Your task to perform on an android device: read, delete, or share a saved page in the chrome app Image 0: 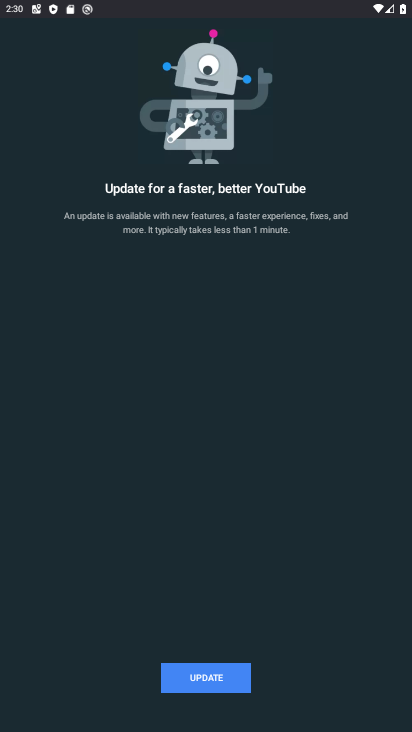
Step 0: press back button
Your task to perform on an android device: read, delete, or share a saved page in the chrome app Image 1: 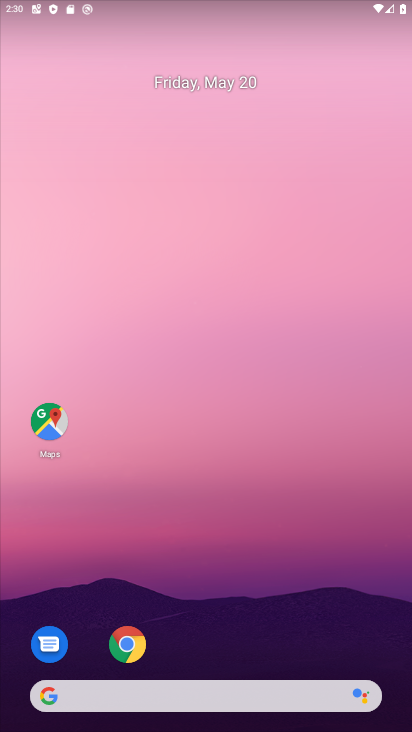
Step 1: click (120, 638)
Your task to perform on an android device: read, delete, or share a saved page in the chrome app Image 2: 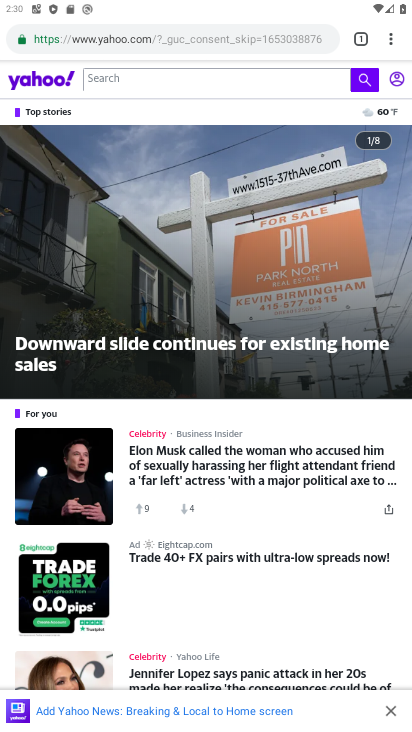
Step 2: click (390, 32)
Your task to perform on an android device: read, delete, or share a saved page in the chrome app Image 3: 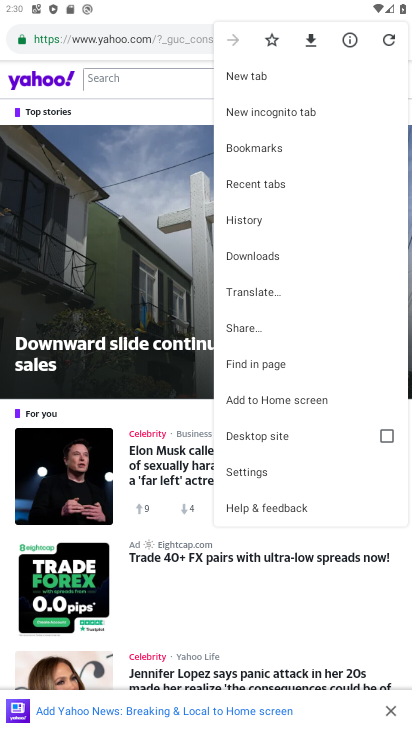
Step 3: click (261, 257)
Your task to perform on an android device: read, delete, or share a saved page in the chrome app Image 4: 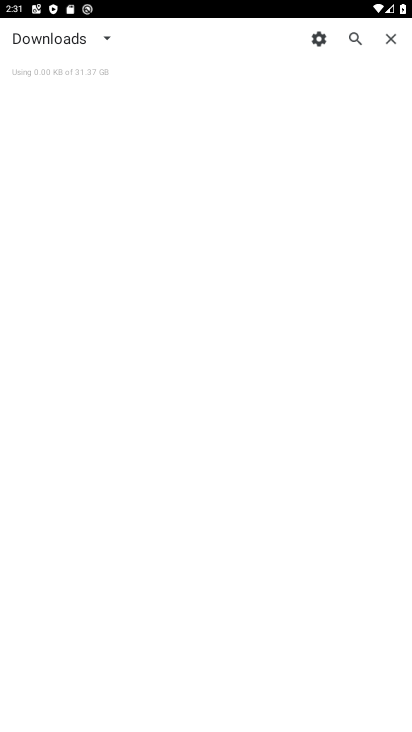
Step 4: task complete